Your task to perform on an android device: change notifications settings Image 0: 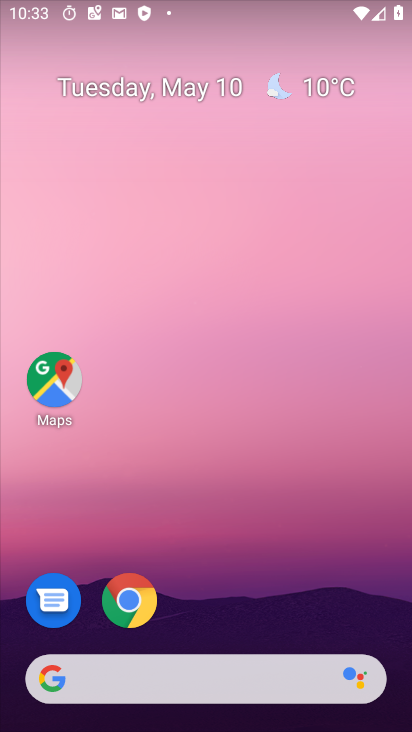
Step 0: drag from (202, 527) to (191, 73)
Your task to perform on an android device: change notifications settings Image 1: 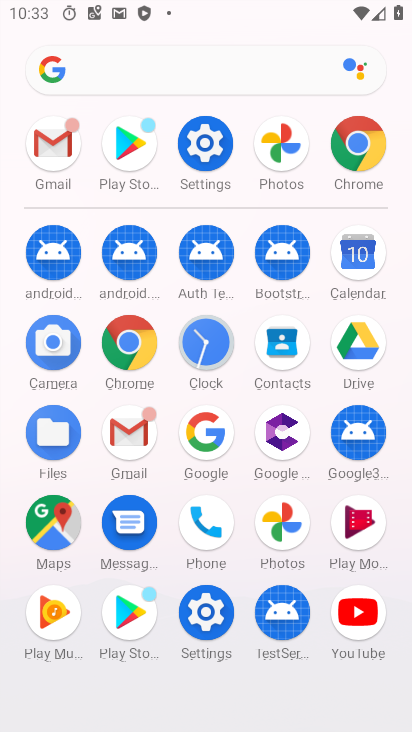
Step 1: drag from (11, 496) to (10, 208)
Your task to perform on an android device: change notifications settings Image 2: 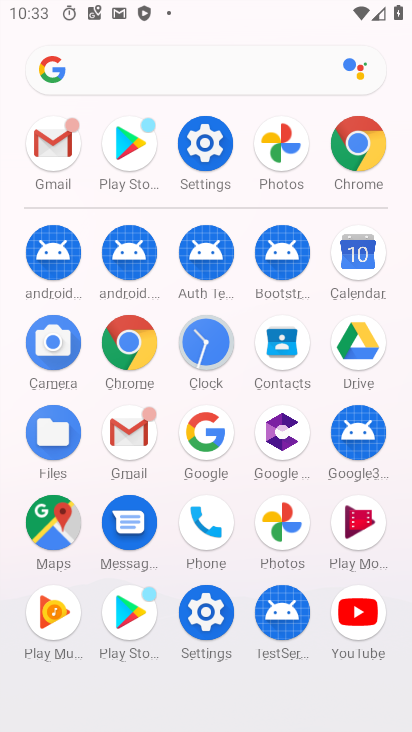
Step 2: click (201, 607)
Your task to perform on an android device: change notifications settings Image 3: 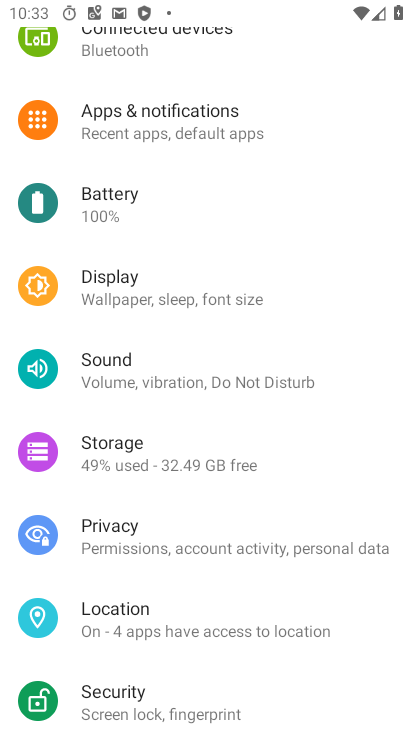
Step 3: click (211, 126)
Your task to perform on an android device: change notifications settings Image 4: 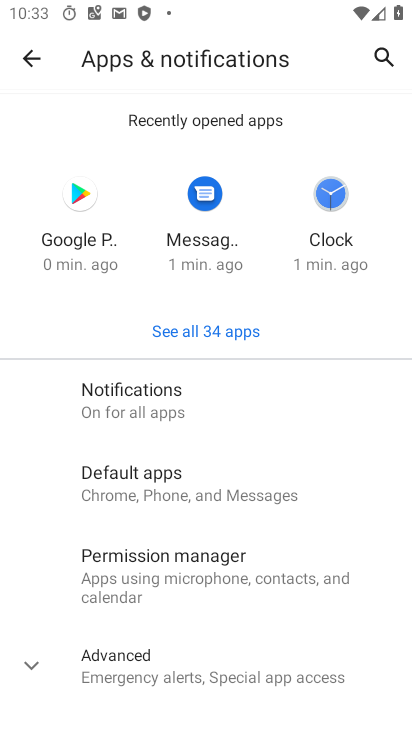
Step 4: click (180, 395)
Your task to perform on an android device: change notifications settings Image 5: 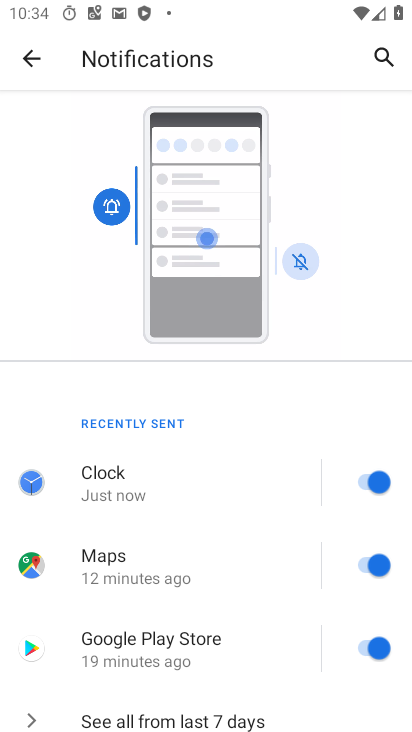
Step 5: drag from (206, 556) to (262, 152)
Your task to perform on an android device: change notifications settings Image 6: 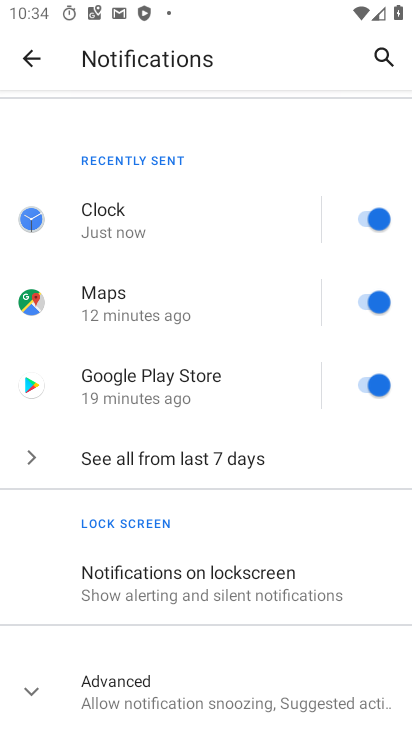
Step 6: drag from (212, 573) to (233, 237)
Your task to perform on an android device: change notifications settings Image 7: 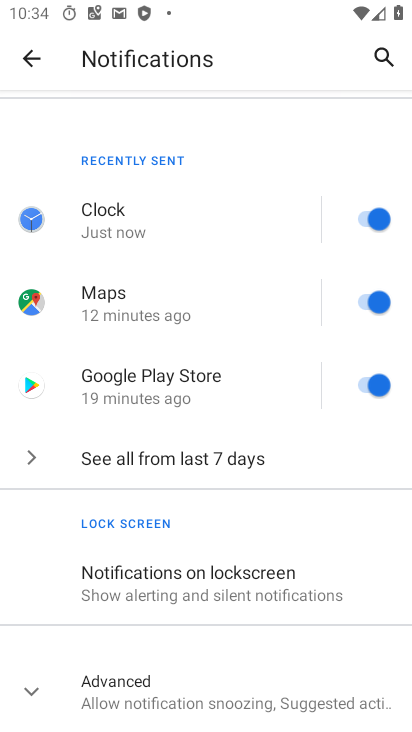
Step 7: click (39, 677)
Your task to perform on an android device: change notifications settings Image 8: 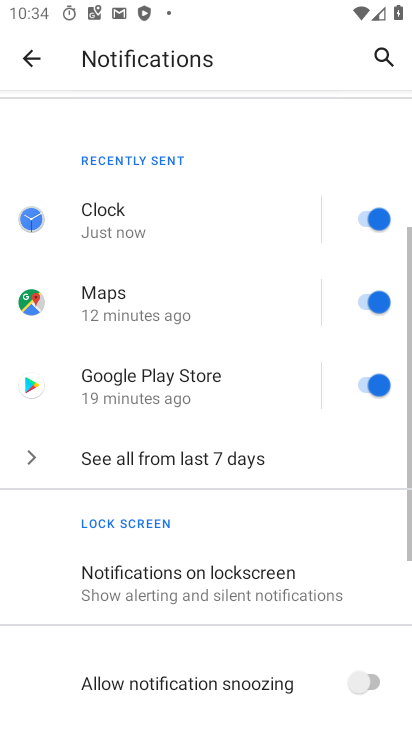
Step 8: task complete